Your task to perform on an android device: delete location history Image 0: 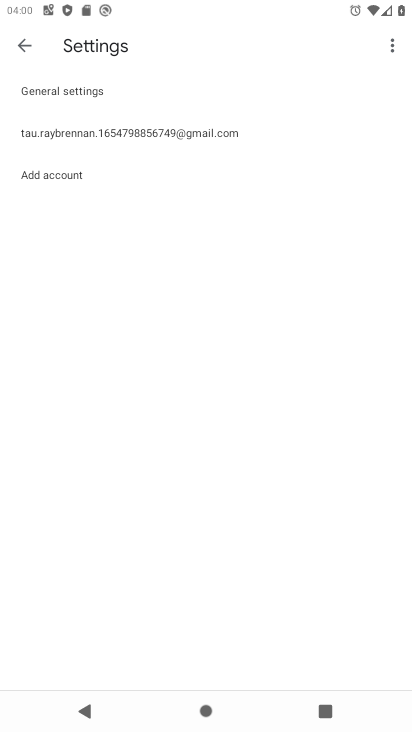
Step 0: press home button
Your task to perform on an android device: delete location history Image 1: 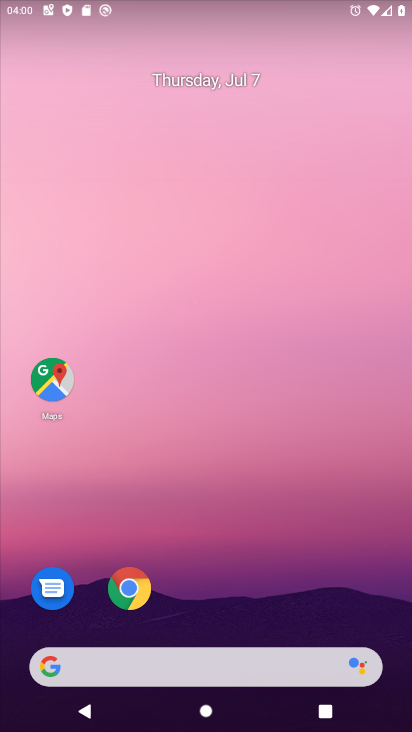
Step 1: drag from (178, 653) to (167, 275)
Your task to perform on an android device: delete location history Image 2: 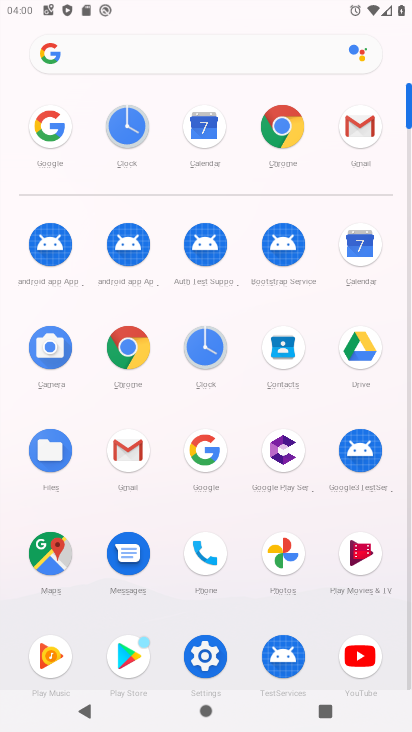
Step 2: click (207, 660)
Your task to perform on an android device: delete location history Image 3: 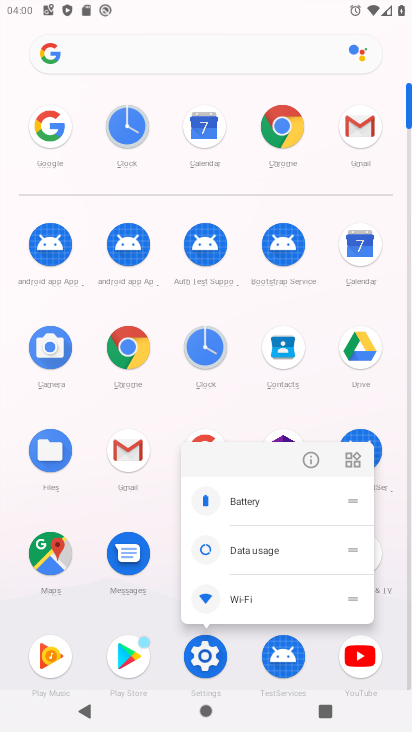
Step 3: click (207, 660)
Your task to perform on an android device: delete location history Image 4: 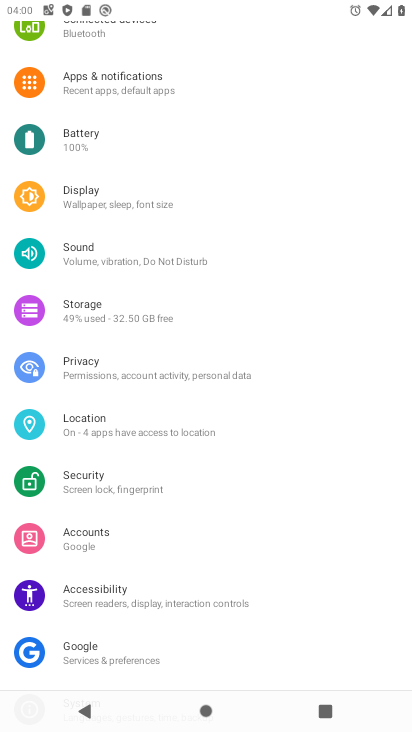
Step 4: click (98, 429)
Your task to perform on an android device: delete location history Image 5: 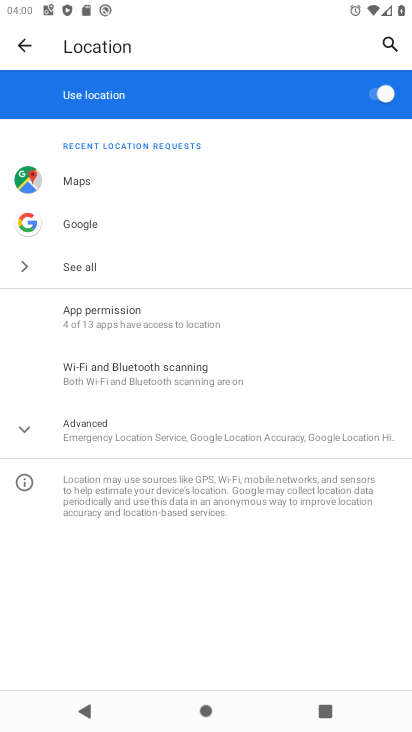
Step 5: click (76, 431)
Your task to perform on an android device: delete location history Image 6: 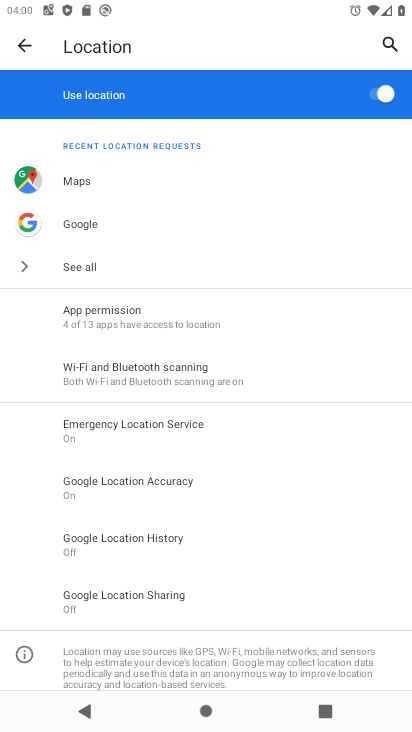
Step 6: click (147, 546)
Your task to perform on an android device: delete location history Image 7: 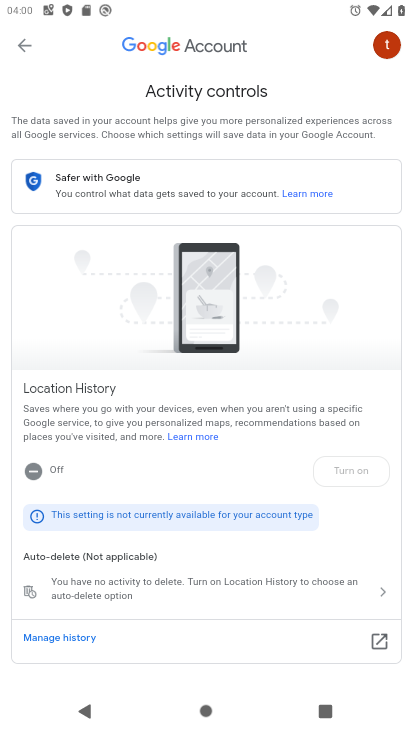
Step 7: click (115, 516)
Your task to perform on an android device: delete location history Image 8: 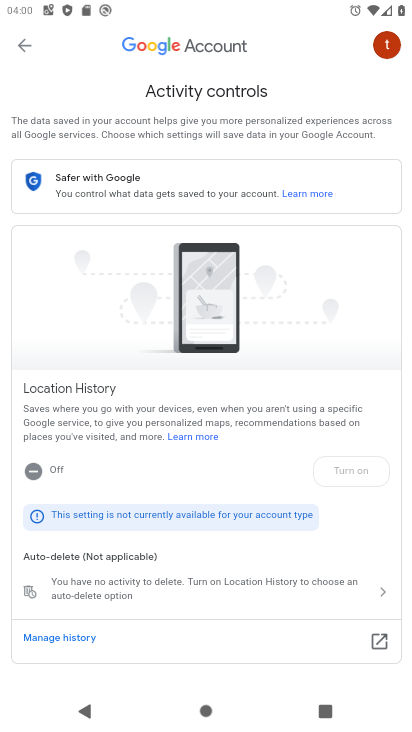
Step 8: click (102, 566)
Your task to perform on an android device: delete location history Image 9: 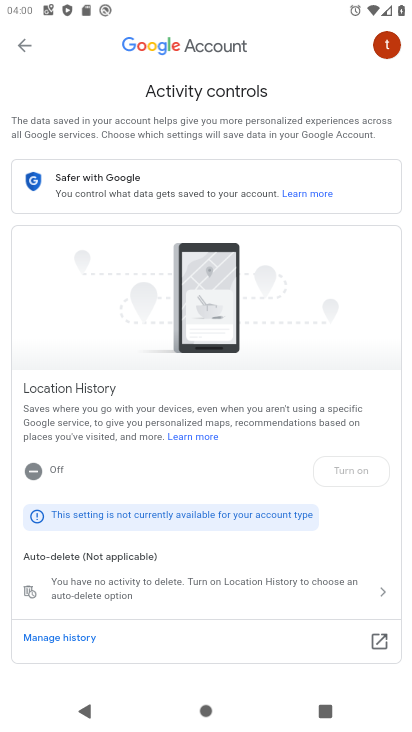
Step 9: click (87, 588)
Your task to perform on an android device: delete location history Image 10: 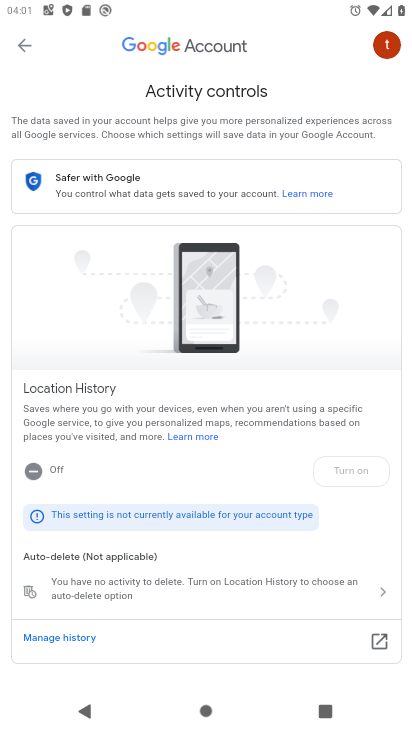
Step 10: task complete